Your task to perform on an android device: Open Amazon Image 0: 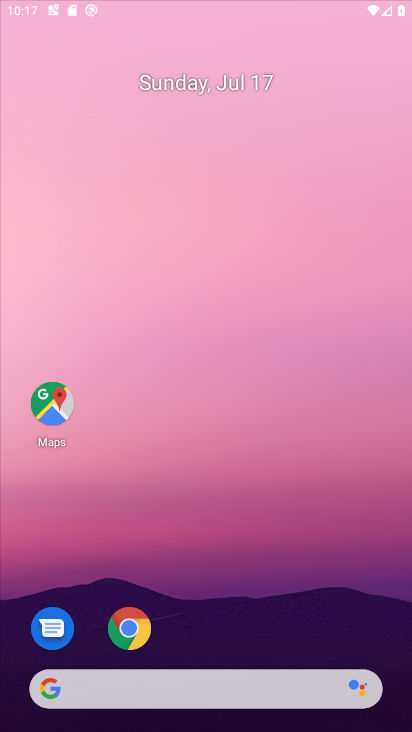
Step 0: click (232, 60)
Your task to perform on an android device: Open Amazon Image 1: 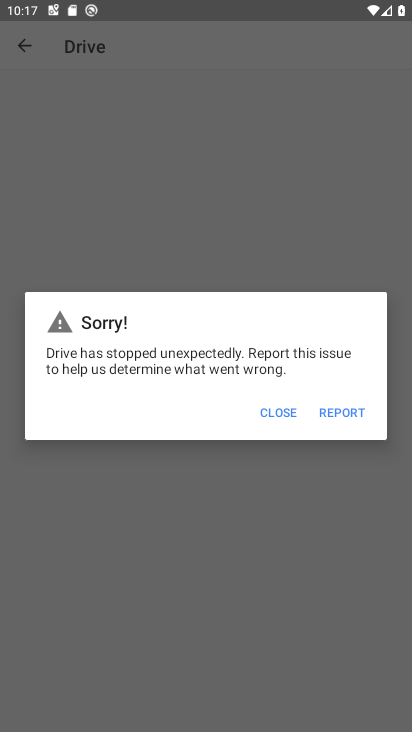
Step 1: press home button
Your task to perform on an android device: Open Amazon Image 2: 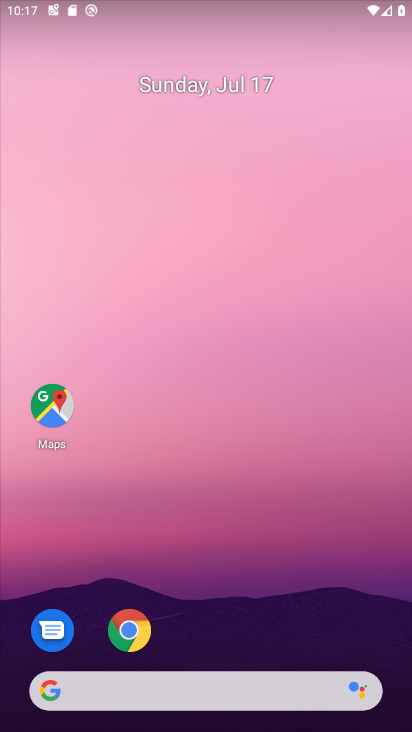
Step 2: click (124, 626)
Your task to perform on an android device: Open Amazon Image 3: 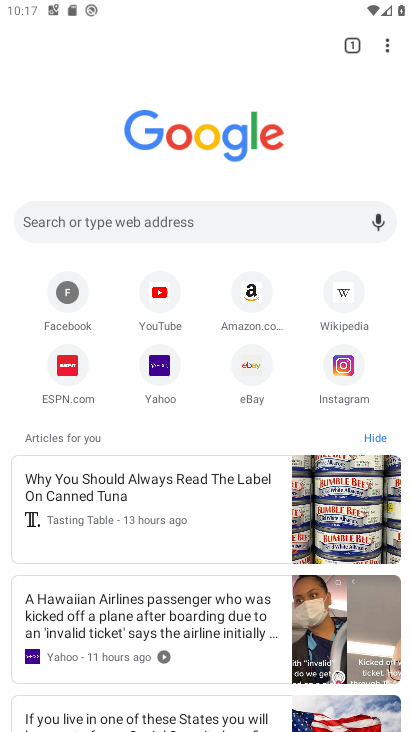
Step 3: click (250, 289)
Your task to perform on an android device: Open Amazon Image 4: 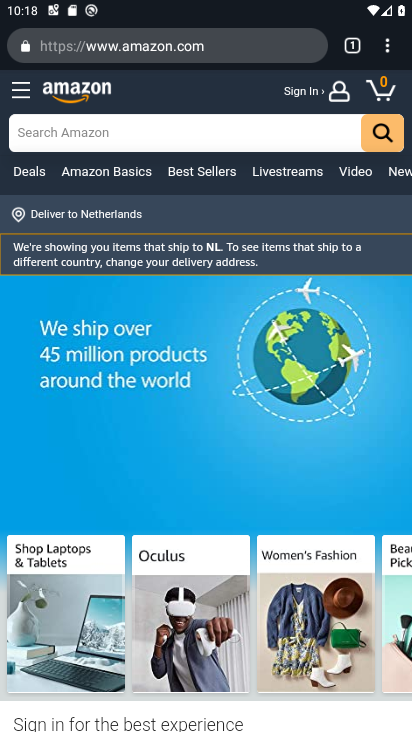
Step 4: task complete